Your task to perform on an android device: open wifi settings Image 0: 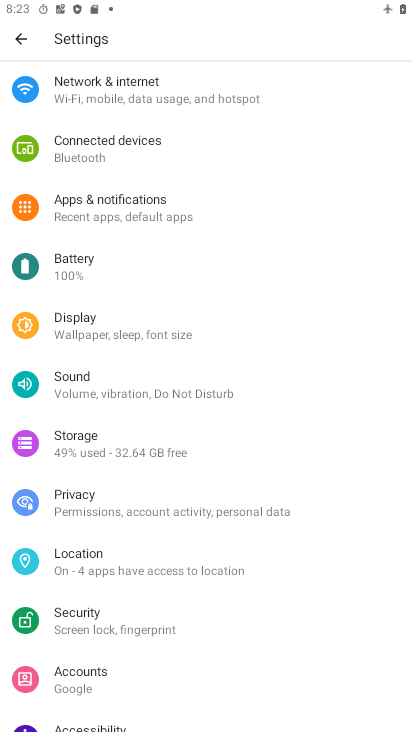
Step 0: click (117, 78)
Your task to perform on an android device: open wifi settings Image 1: 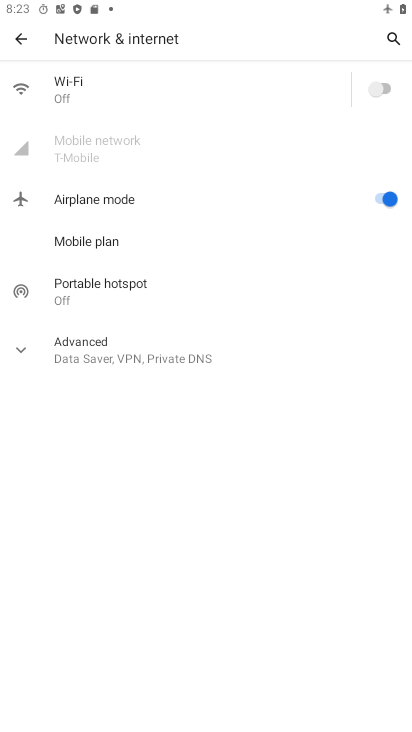
Step 1: click (246, 85)
Your task to perform on an android device: open wifi settings Image 2: 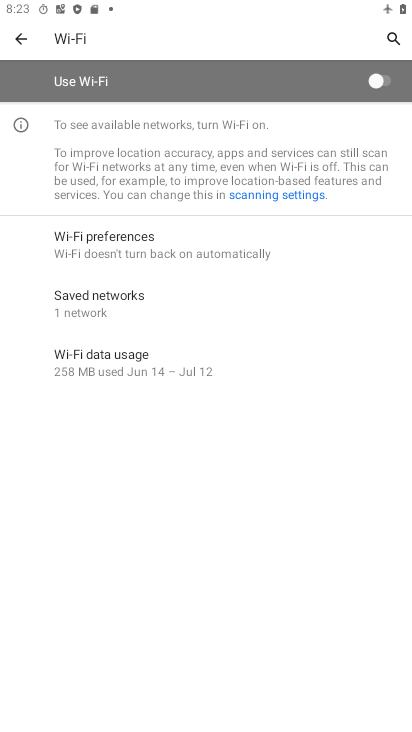
Step 2: click (384, 75)
Your task to perform on an android device: open wifi settings Image 3: 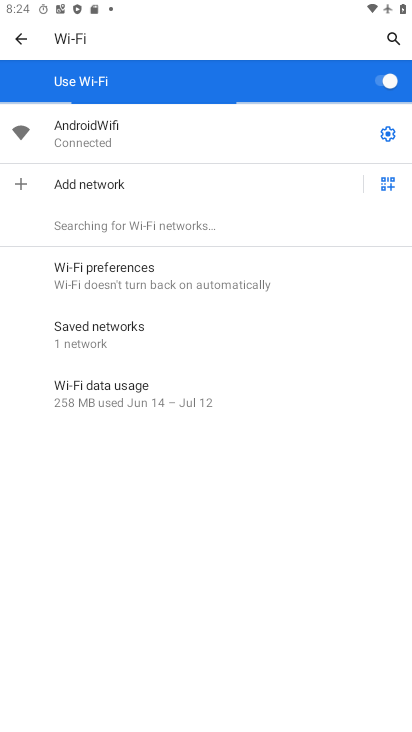
Step 3: task complete